Your task to perform on an android device: see creations saved in the google photos Image 0: 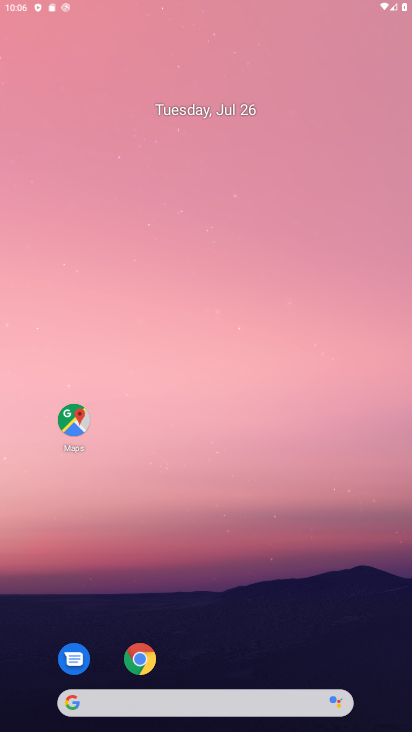
Step 0: press home button
Your task to perform on an android device: see creations saved in the google photos Image 1: 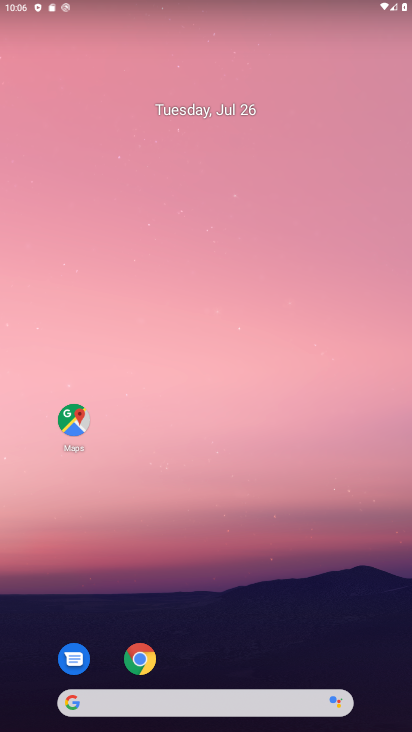
Step 1: drag from (245, 622) to (154, 137)
Your task to perform on an android device: see creations saved in the google photos Image 2: 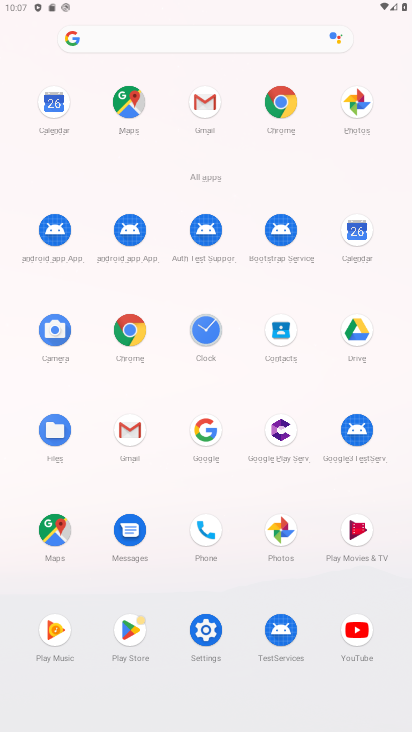
Step 2: click (276, 524)
Your task to perform on an android device: see creations saved in the google photos Image 3: 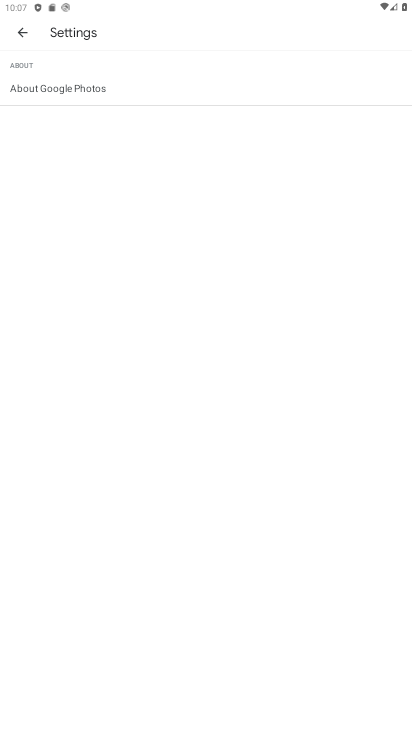
Step 3: click (23, 32)
Your task to perform on an android device: see creations saved in the google photos Image 4: 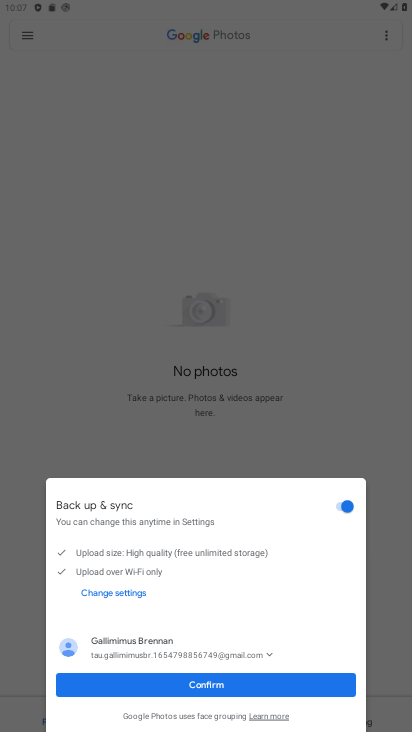
Step 4: click (139, 689)
Your task to perform on an android device: see creations saved in the google photos Image 5: 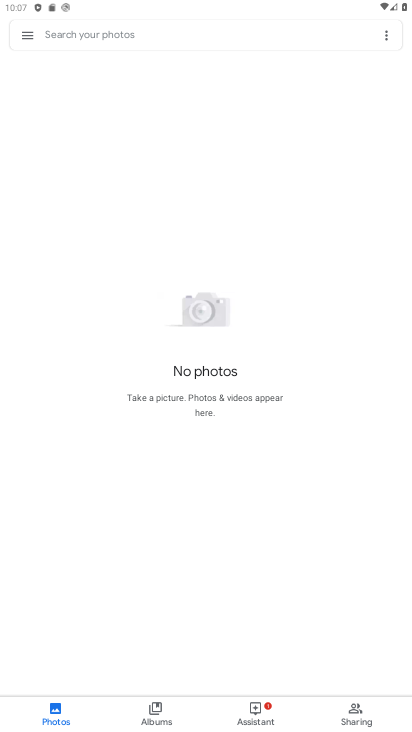
Step 5: click (172, 40)
Your task to perform on an android device: see creations saved in the google photos Image 6: 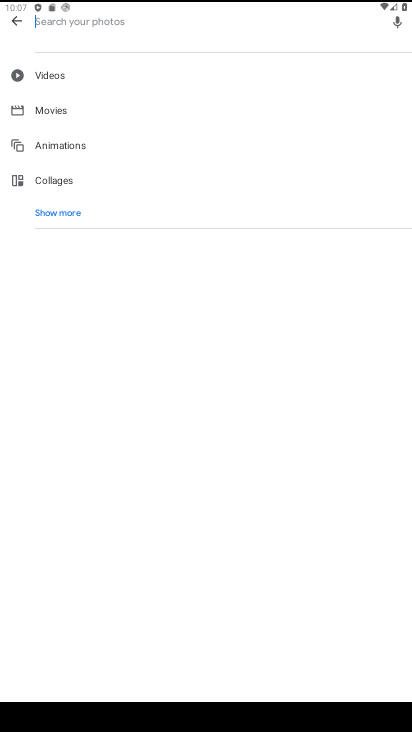
Step 6: click (75, 217)
Your task to perform on an android device: see creations saved in the google photos Image 7: 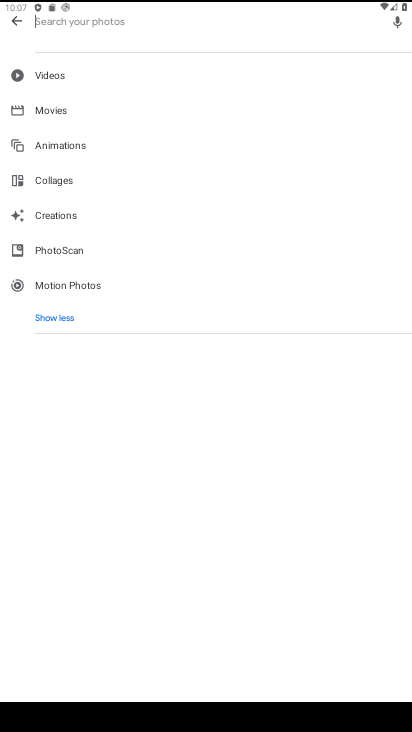
Step 7: click (75, 217)
Your task to perform on an android device: see creations saved in the google photos Image 8: 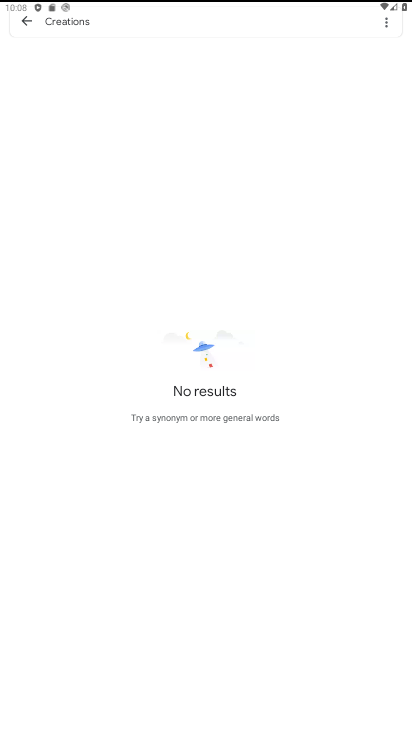
Step 8: task complete